Your task to perform on an android device: change text size in settings app Image 0: 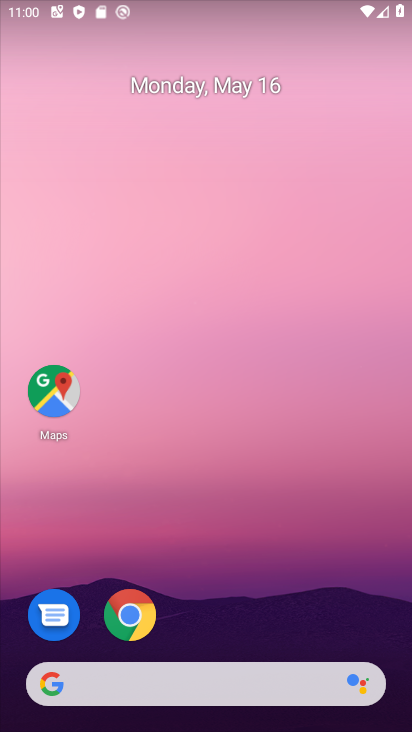
Step 0: drag from (228, 723) to (239, 109)
Your task to perform on an android device: change text size in settings app Image 1: 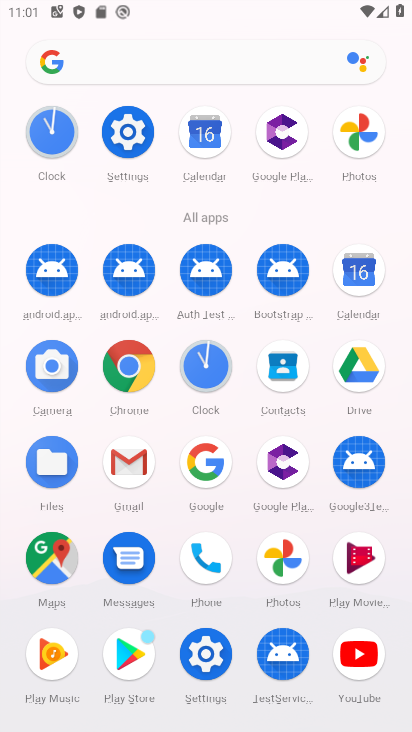
Step 1: click (131, 140)
Your task to perform on an android device: change text size in settings app Image 2: 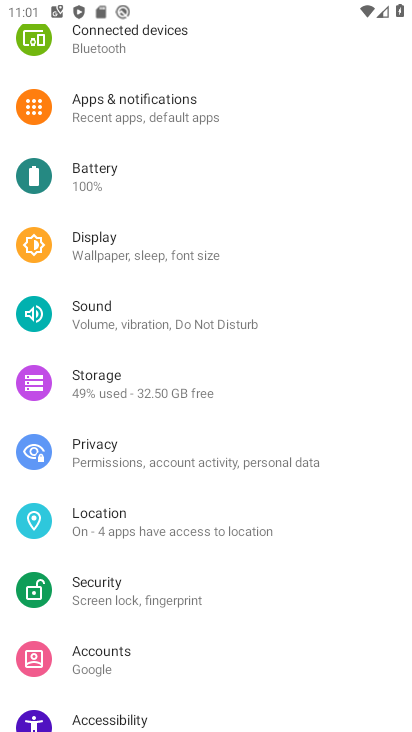
Step 2: click (114, 255)
Your task to perform on an android device: change text size in settings app Image 3: 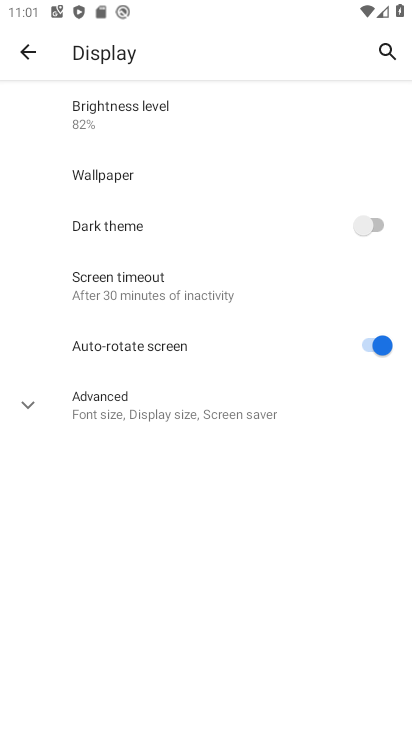
Step 3: click (102, 408)
Your task to perform on an android device: change text size in settings app Image 4: 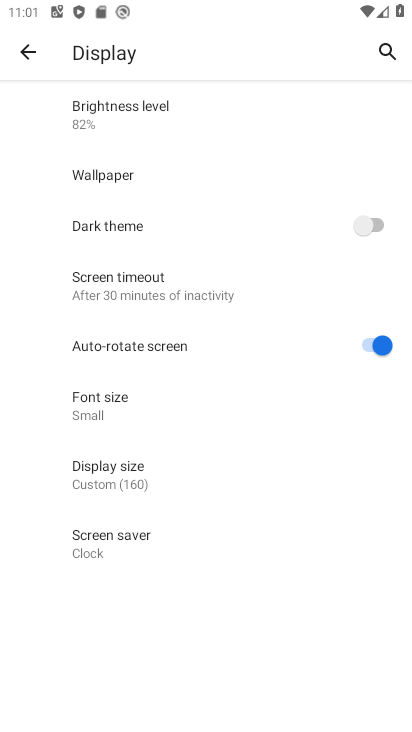
Step 4: click (89, 401)
Your task to perform on an android device: change text size in settings app Image 5: 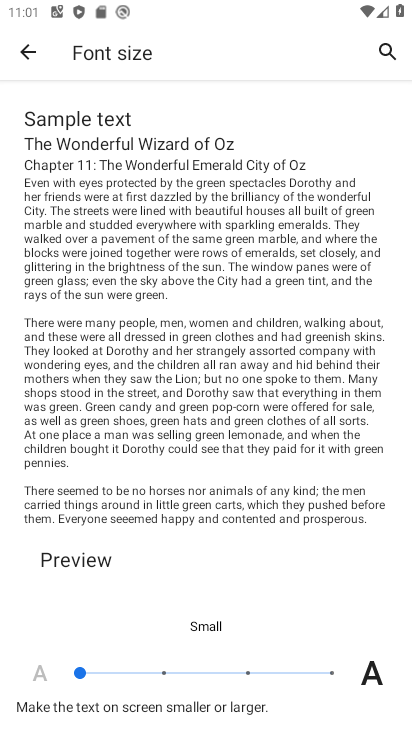
Step 5: click (165, 671)
Your task to perform on an android device: change text size in settings app Image 6: 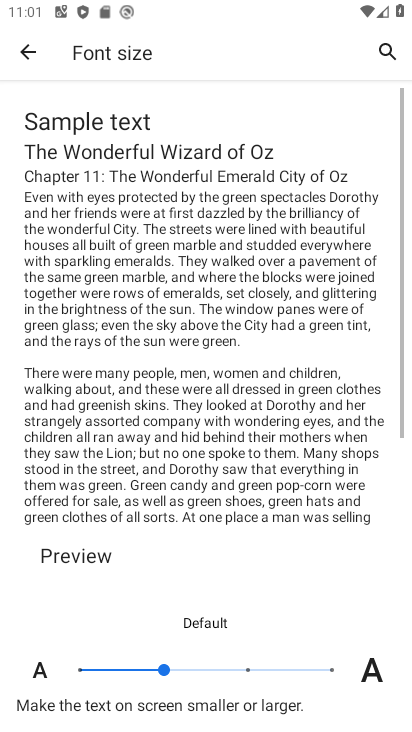
Step 6: task complete